Your task to perform on an android device: choose inbox layout in the gmail app Image 0: 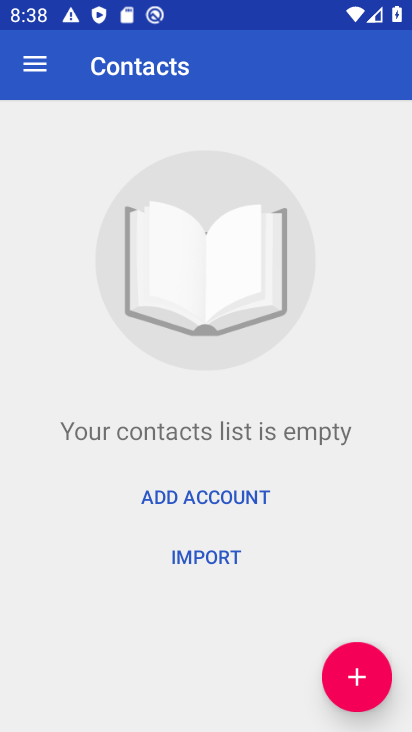
Step 0: press back button
Your task to perform on an android device: choose inbox layout in the gmail app Image 1: 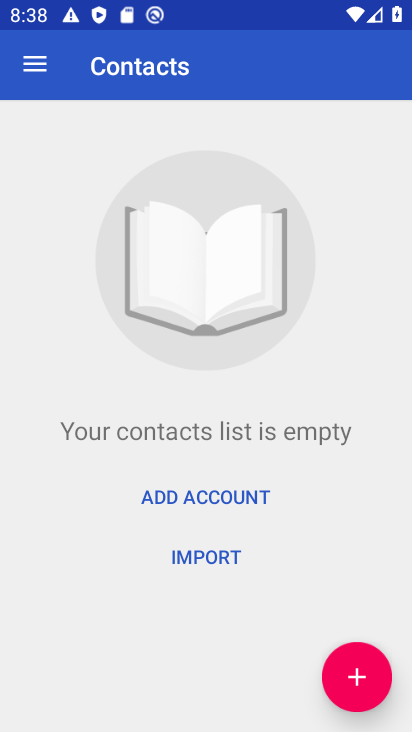
Step 1: press back button
Your task to perform on an android device: choose inbox layout in the gmail app Image 2: 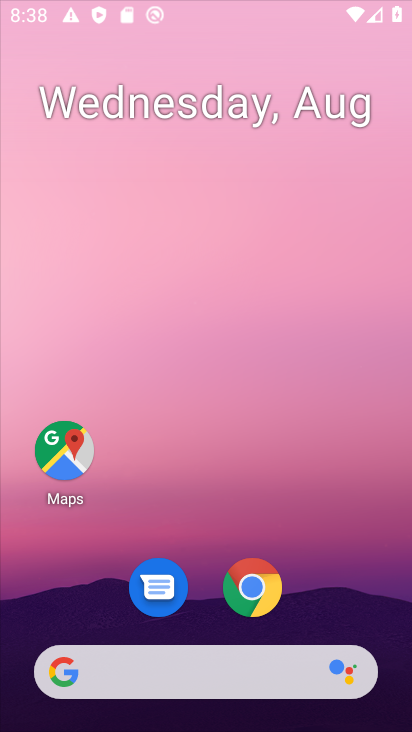
Step 2: press back button
Your task to perform on an android device: choose inbox layout in the gmail app Image 3: 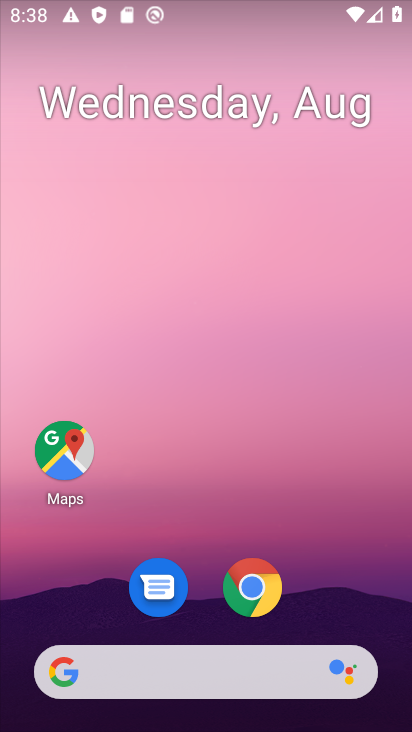
Step 3: drag from (282, 693) to (174, 201)
Your task to perform on an android device: choose inbox layout in the gmail app Image 4: 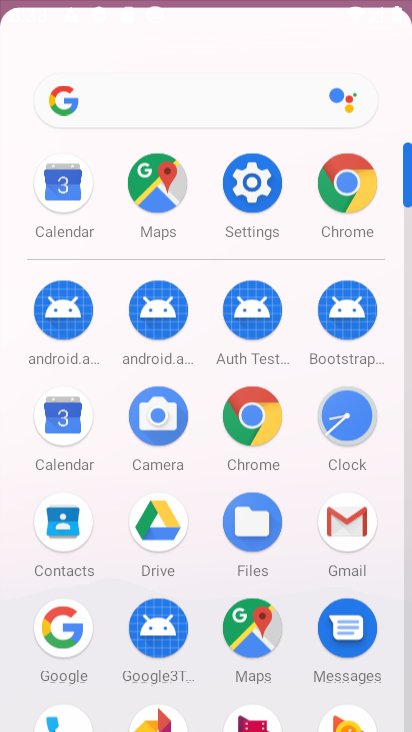
Step 4: drag from (241, 556) to (240, 174)
Your task to perform on an android device: choose inbox layout in the gmail app Image 5: 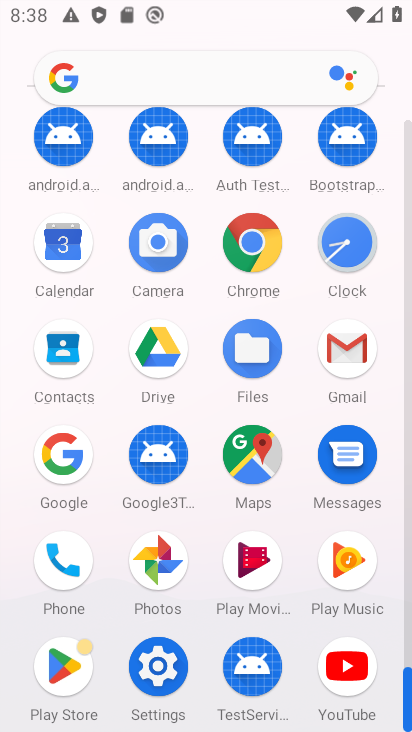
Step 5: click (353, 331)
Your task to perform on an android device: choose inbox layout in the gmail app Image 6: 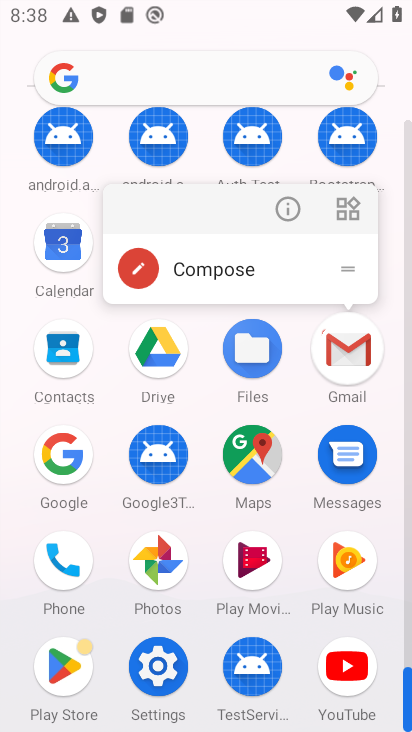
Step 6: click (353, 345)
Your task to perform on an android device: choose inbox layout in the gmail app Image 7: 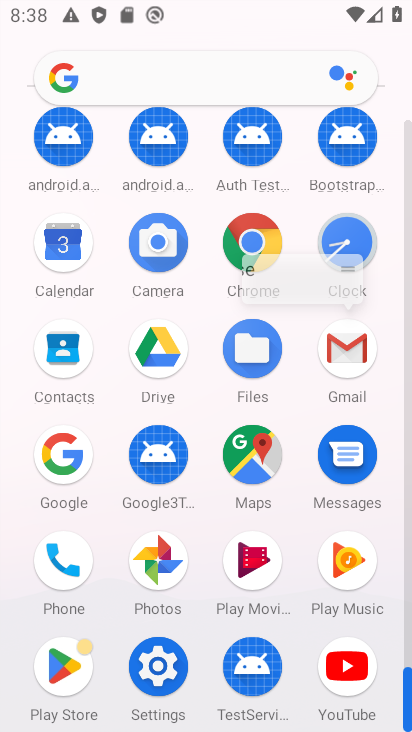
Step 7: click (353, 345)
Your task to perform on an android device: choose inbox layout in the gmail app Image 8: 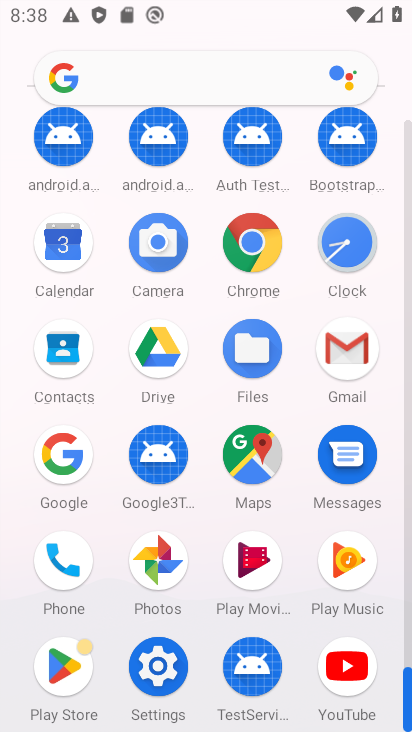
Step 8: click (353, 346)
Your task to perform on an android device: choose inbox layout in the gmail app Image 9: 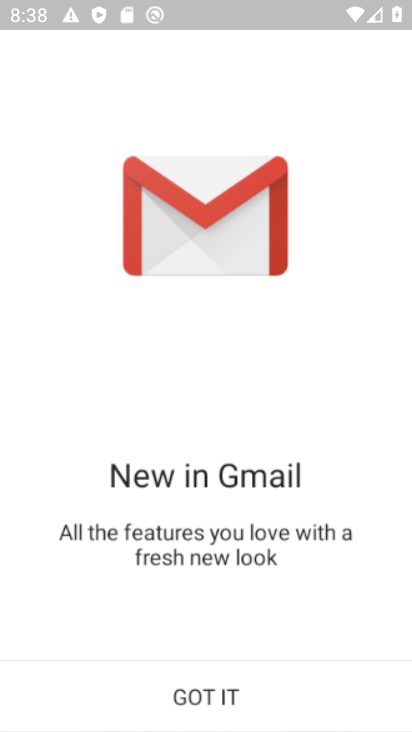
Step 9: click (353, 348)
Your task to perform on an android device: choose inbox layout in the gmail app Image 10: 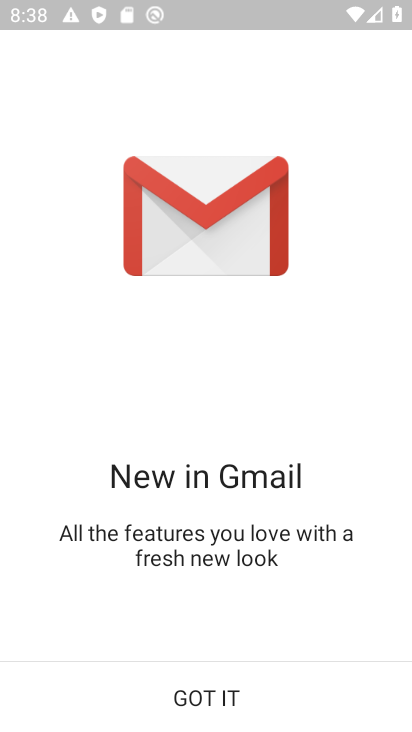
Step 10: click (353, 348)
Your task to perform on an android device: choose inbox layout in the gmail app Image 11: 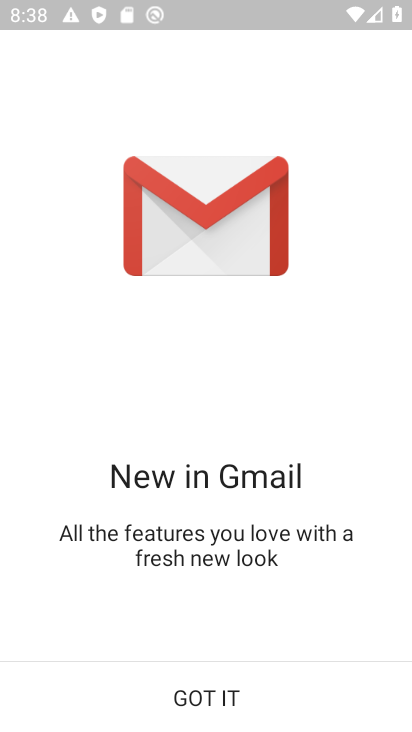
Step 11: click (191, 689)
Your task to perform on an android device: choose inbox layout in the gmail app Image 12: 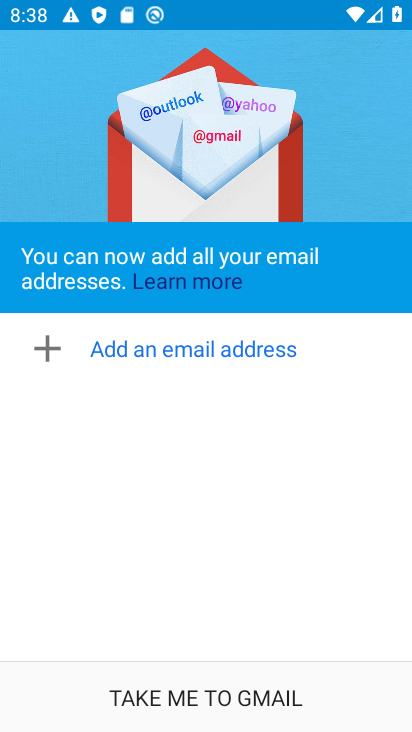
Step 12: press back button
Your task to perform on an android device: choose inbox layout in the gmail app Image 13: 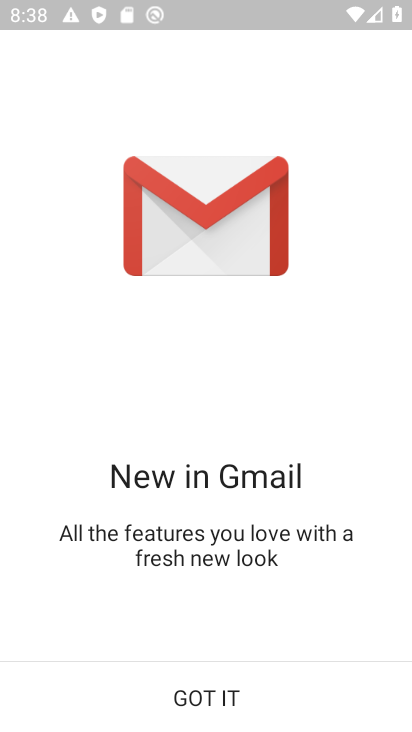
Step 13: click (210, 683)
Your task to perform on an android device: choose inbox layout in the gmail app Image 14: 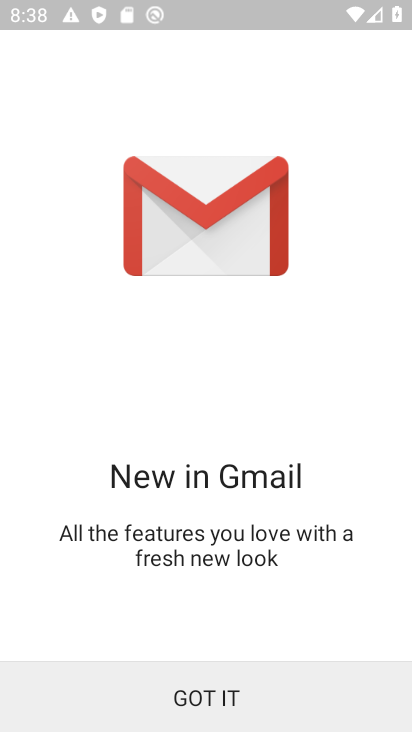
Step 14: click (210, 683)
Your task to perform on an android device: choose inbox layout in the gmail app Image 15: 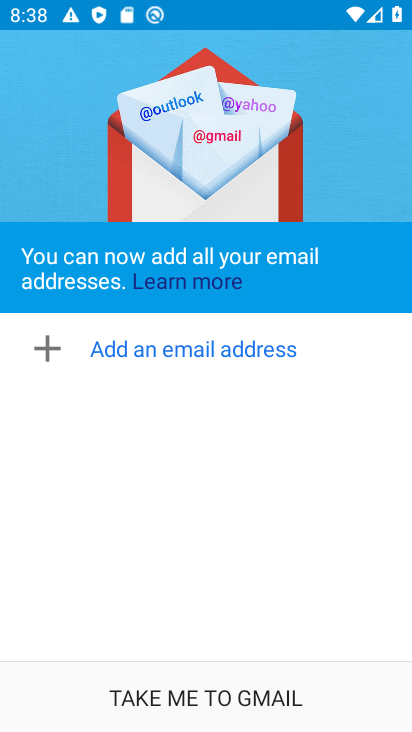
Step 15: click (208, 684)
Your task to perform on an android device: choose inbox layout in the gmail app Image 16: 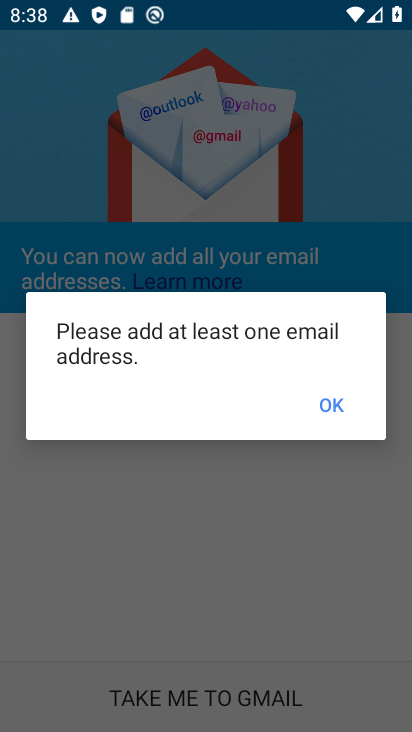
Step 16: click (209, 691)
Your task to perform on an android device: choose inbox layout in the gmail app Image 17: 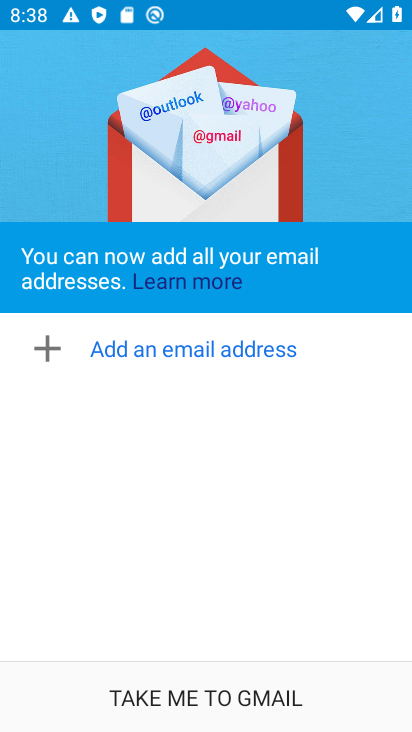
Step 17: click (332, 405)
Your task to perform on an android device: choose inbox layout in the gmail app Image 18: 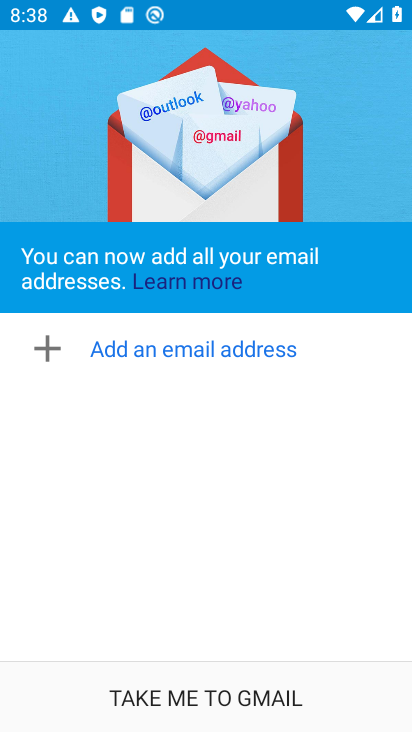
Step 18: click (182, 694)
Your task to perform on an android device: choose inbox layout in the gmail app Image 19: 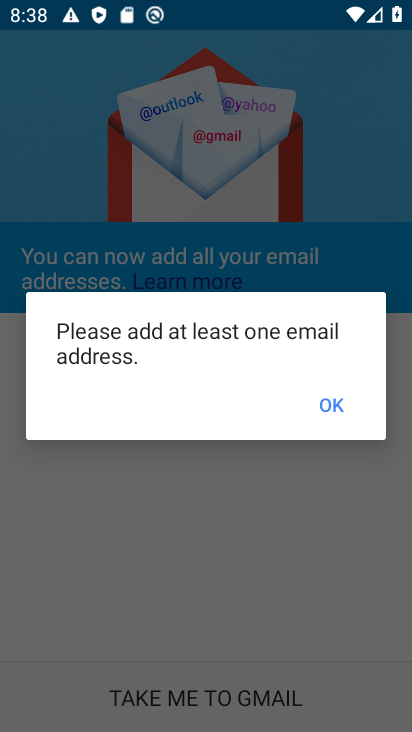
Step 19: click (338, 396)
Your task to perform on an android device: choose inbox layout in the gmail app Image 20: 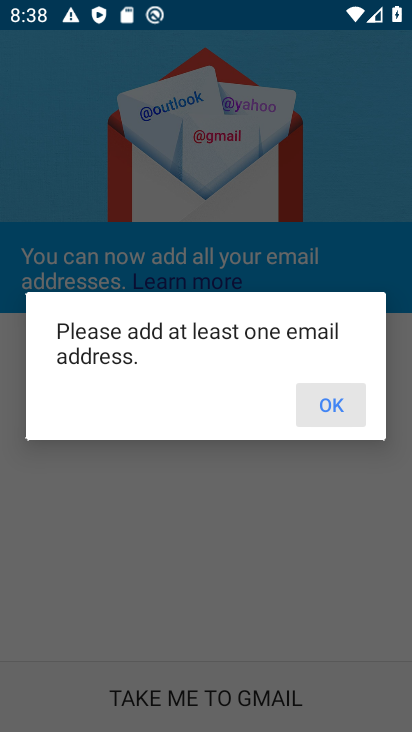
Step 20: click (323, 397)
Your task to perform on an android device: choose inbox layout in the gmail app Image 21: 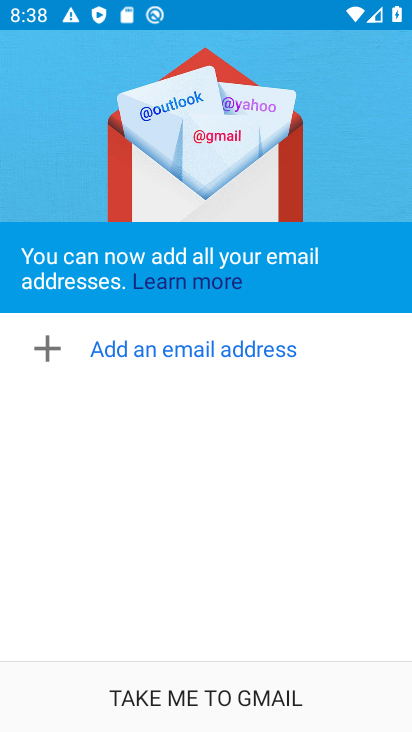
Step 21: click (322, 397)
Your task to perform on an android device: choose inbox layout in the gmail app Image 22: 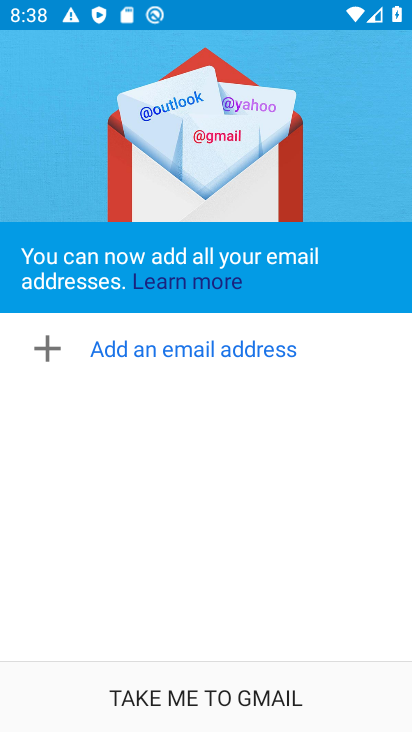
Step 22: task complete